Your task to perform on an android device: Search for seafood restaurants on Google Maps Image 0: 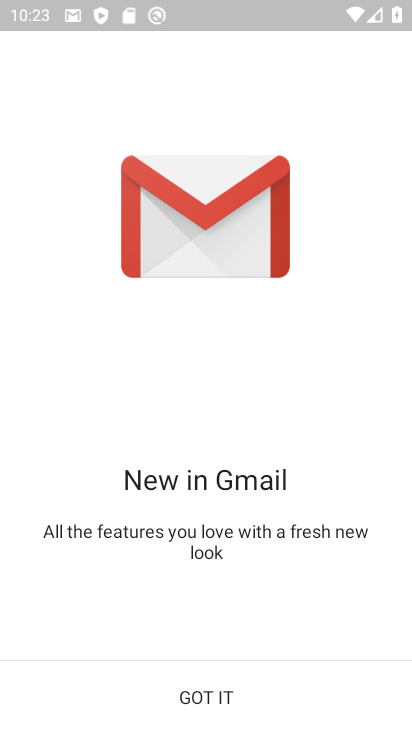
Step 0: press home button
Your task to perform on an android device: Search for seafood restaurants on Google Maps Image 1: 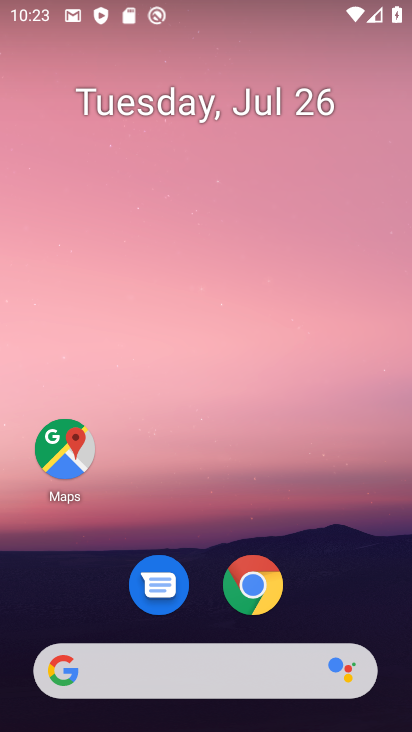
Step 1: drag from (205, 605) to (245, 690)
Your task to perform on an android device: Search for seafood restaurants on Google Maps Image 2: 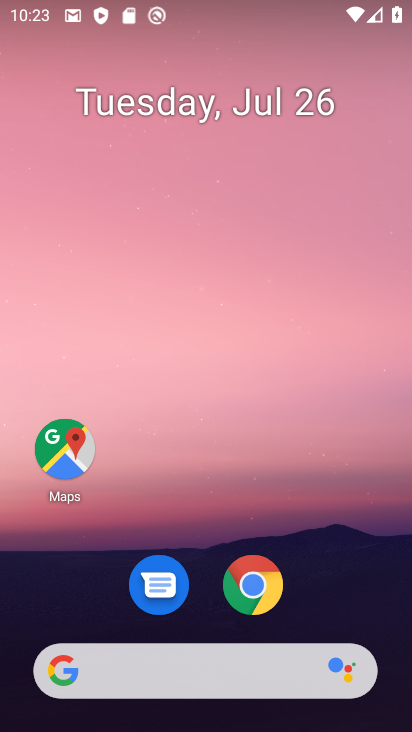
Step 2: click (77, 460)
Your task to perform on an android device: Search for seafood restaurants on Google Maps Image 3: 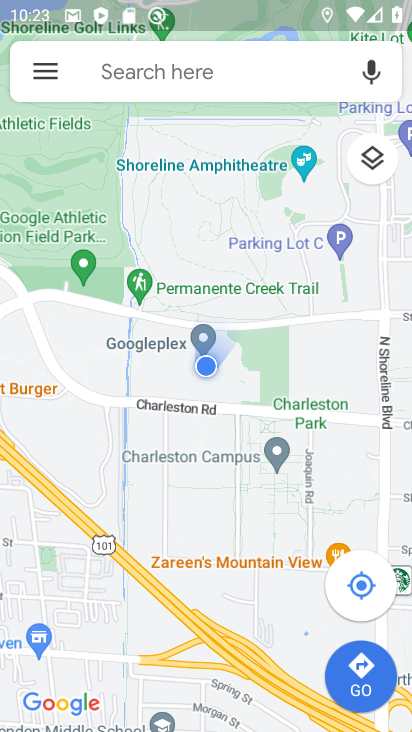
Step 3: click (234, 70)
Your task to perform on an android device: Search for seafood restaurants on Google Maps Image 4: 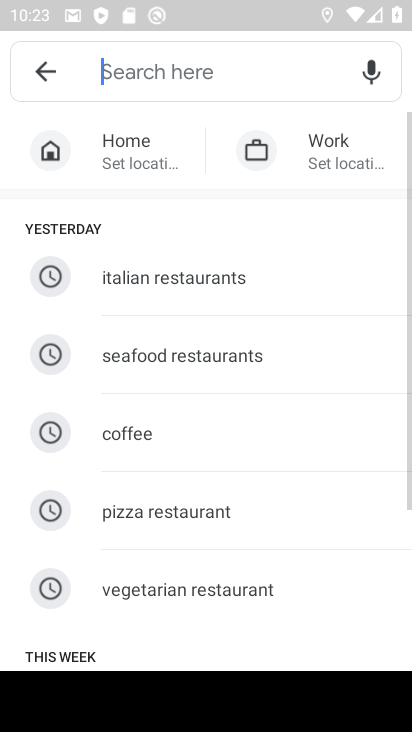
Step 4: click (199, 370)
Your task to perform on an android device: Search for seafood restaurants on Google Maps Image 5: 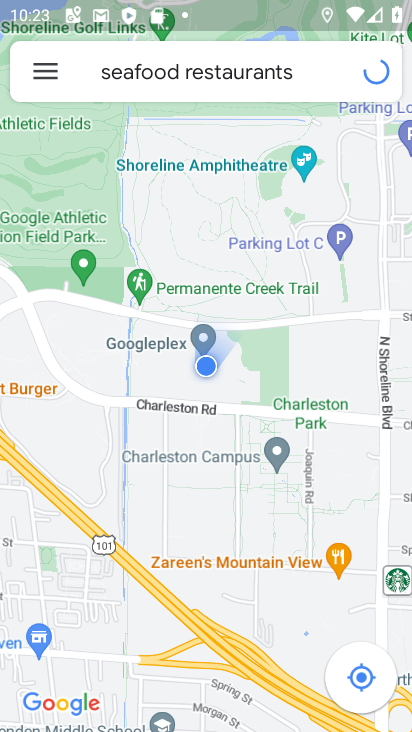
Step 5: task complete